Your task to perform on an android device: turn notification dots off Image 0: 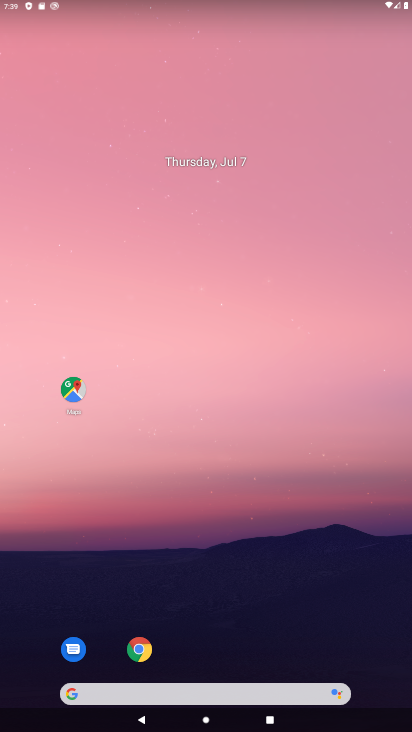
Step 0: drag from (223, 546) to (308, 45)
Your task to perform on an android device: turn notification dots off Image 1: 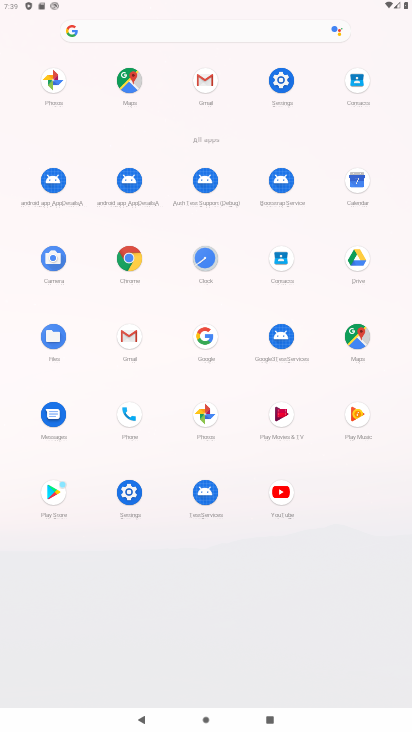
Step 1: click (128, 489)
Your task to perform on an android device: turn notification dots off Image 2: 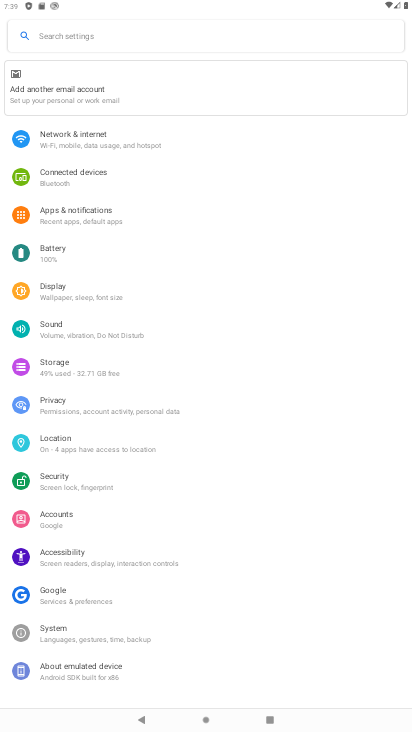
Step 2: click (170, 210)
Your task to perform on an android device: turn notification dots off Image 3: 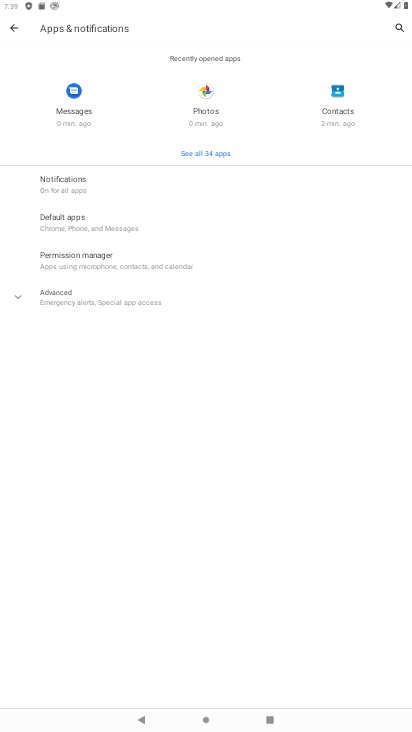
Step 3: click (170, 176)
Your task to perform on an android device: turn notification dots off Image 4: 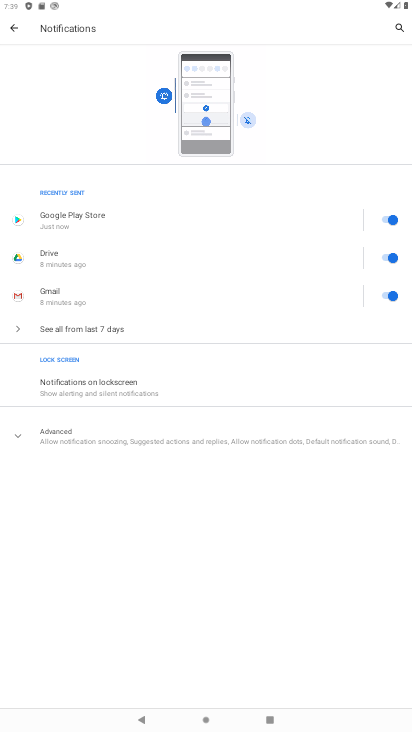
Step 4: click (103, 431)
Your task to perform on an android device: turn notification dots off Image 5: 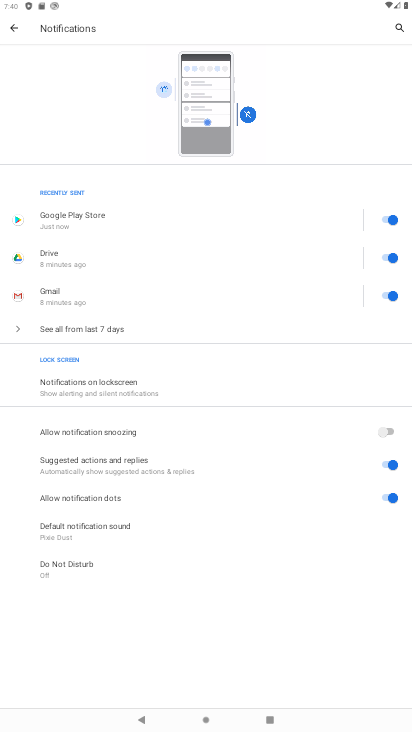
Step 5: click (388, 495)
Your task to perform on an android device: turn notification dots off Image 6: 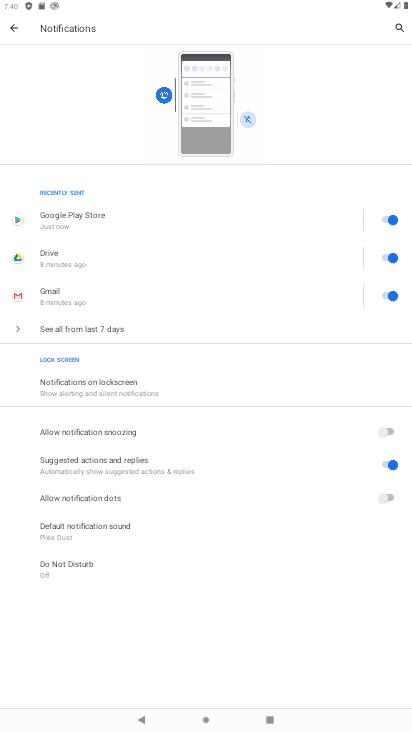
Step 6: task complete